Your task to perform on an android device: toggle data saver in the chrome app Image 0: 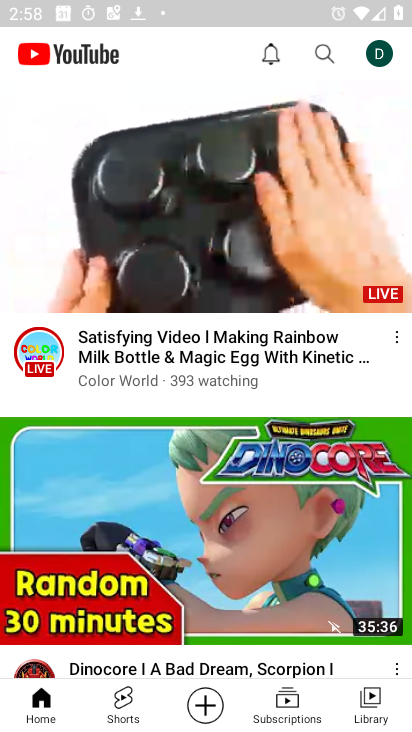
Step 0: press back button
Your task to perform on an android device: toggle data saver in the chrome app Image 1: 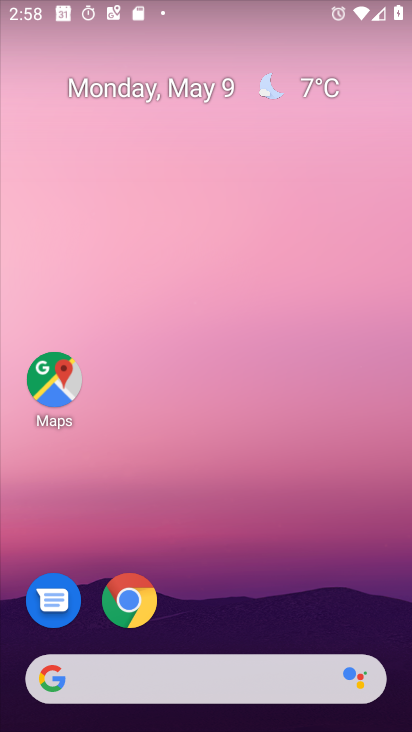
Step 1: click (103, 609)
Your task to perform on an android device: toggle data saver in the chrome app Image 2: 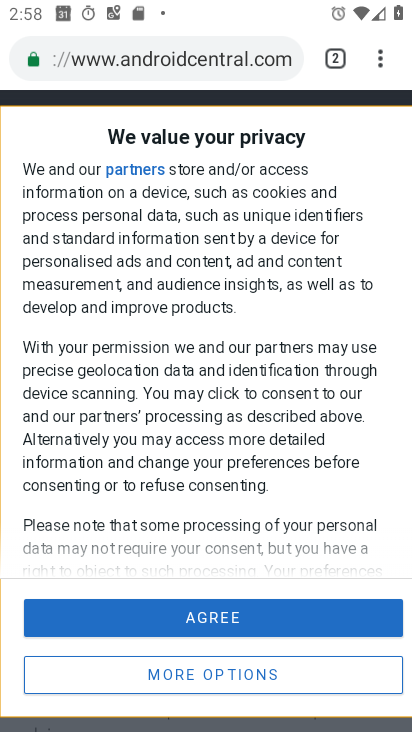
Step 2: click (383, 53)
Your task to perform on an android device: toggle data saver in the chrome app Image 3: 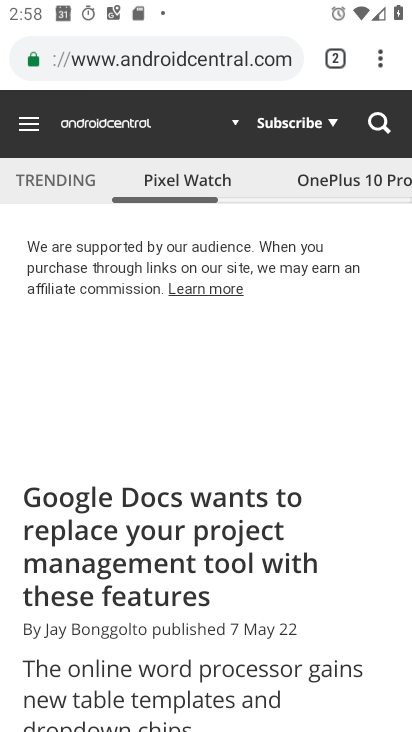
Step 3: drag from (382, 54) to (218, 625)
Your task to perform on an android device: toggle data saver in the chrome app Image 4: 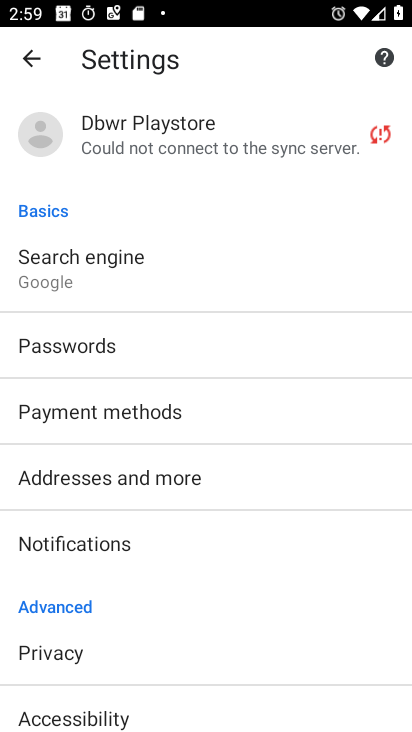
Step 4: drag from (130, 633) to (186, 226)
Your task to perform on an android device: toggle data saver in the chrome app Image 5: 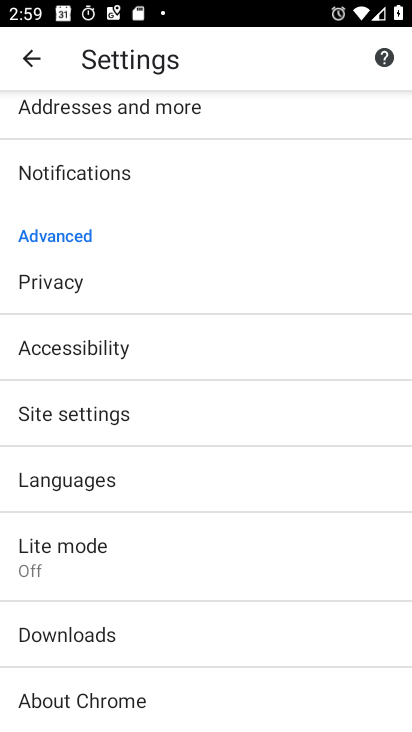
Step 5: click (115, 554)
Your task to perform on an android device: toggle data saver in the chrome app Image 6: 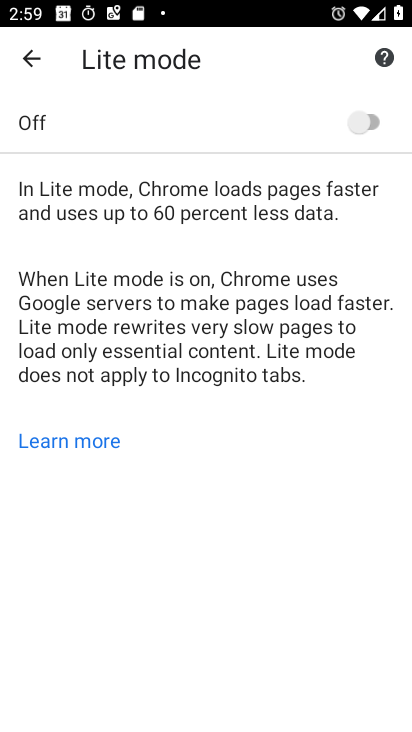
Step 6: click (372, 121)
Your task to perform on an android device: toggle data saver in the chrome app Image 7: 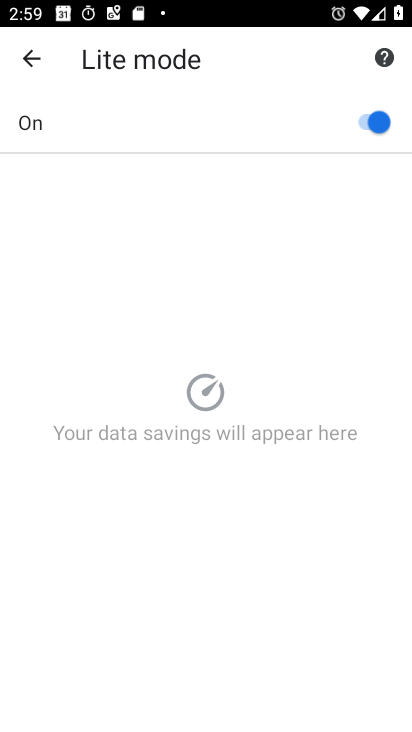
Step 7: task complete